Your task to perform on an android device: refresh tabs in the chrome app Image 0: 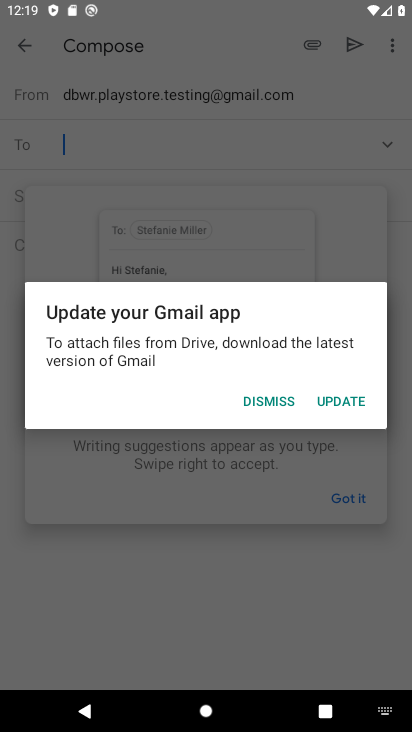
Step 0: press home button
Your task to perform on an android device: refresh tabs in the chrome app Image 1: 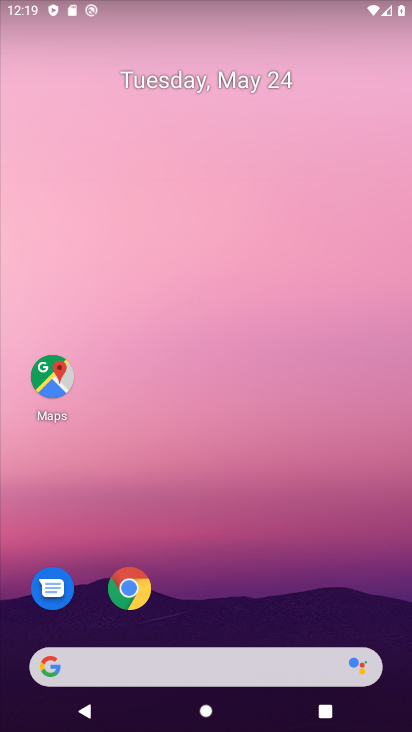
Step 1: click (151, 585)
Your task to perform on an android device: refresh tabs in the chrome app Image 2: 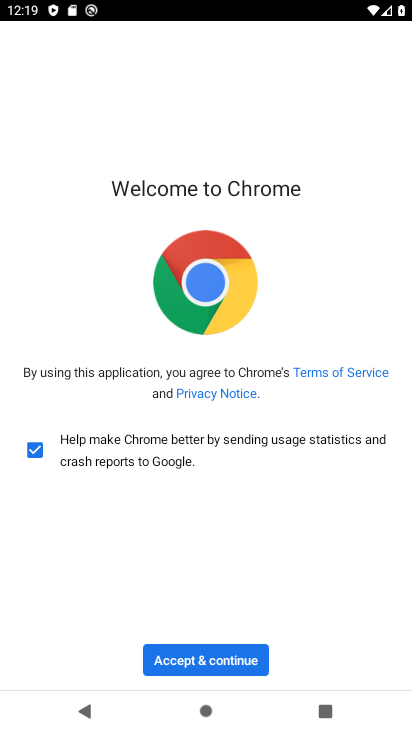
Step 2: click (248, 662)
Your task to perform on an android device: refresh tabs in the chrome app Image 3: 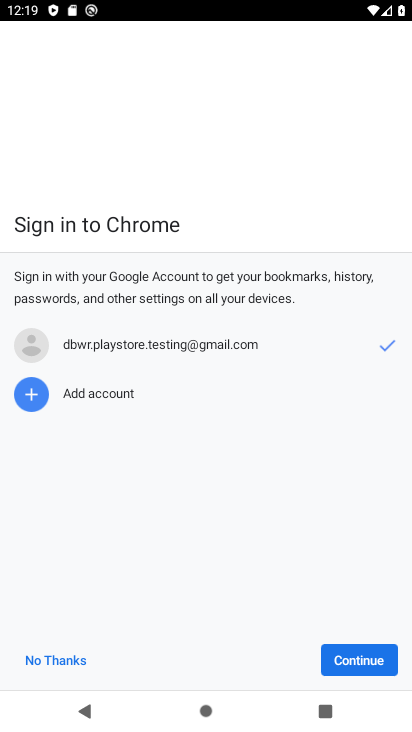
Step 3: click (387, 669)
Your task to perform on an android device: refresh tabs in the chrome app Image 4: 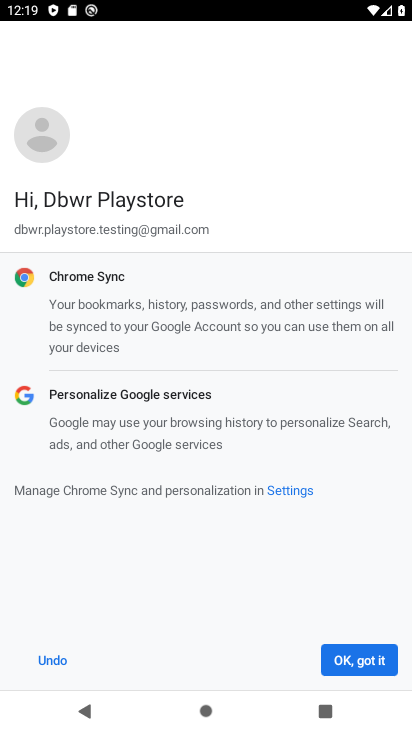
Step 4: click (386, 667)
Your task to perform on an android device: refresh tabs in the chrome app Image 5: 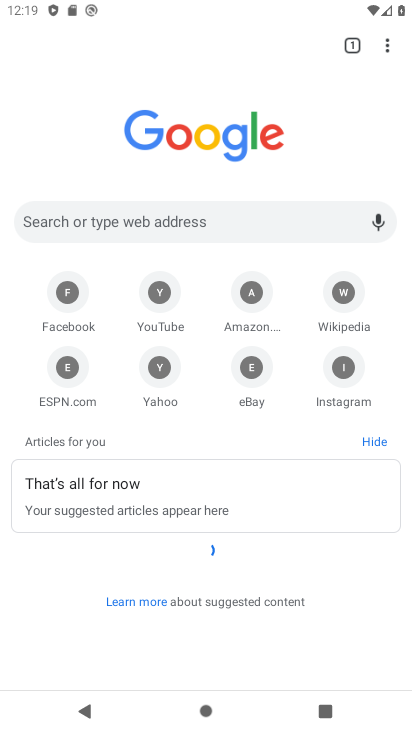
Step 5: click (387, 50)
Your task to perform on an android device: refresh tabs in the chrome app Image 6: 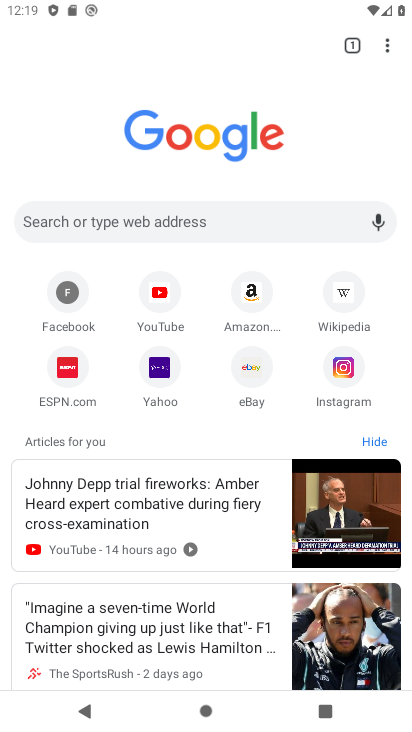
Step 6: task complete